Your task to perform on an android device: turn on notifications settings in the gmail app Image 0: 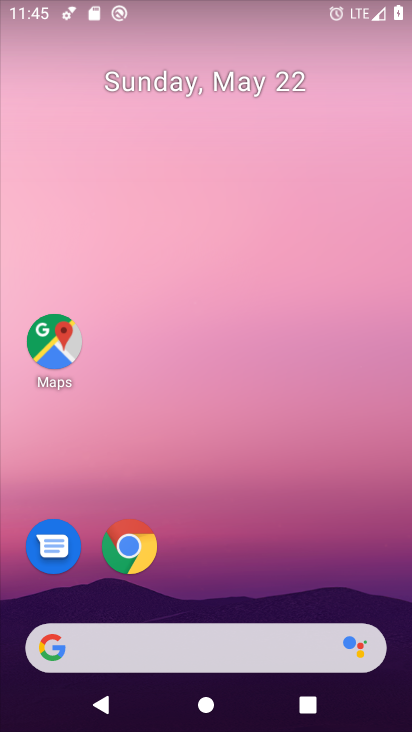
Step 0: drag from (290, 395) to (304, 287)
Your task to perform on an android device: turn on notifications settings in the gmail app Image 1: 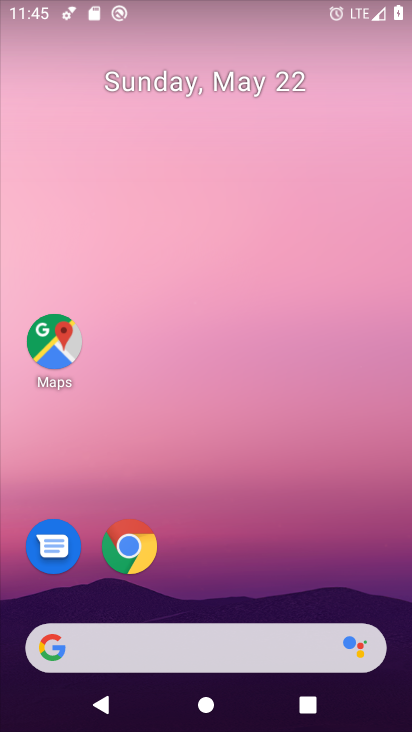
Step 1: drag from (283, 543) to (274, 201)
Your task to perform on an android device: turn on notifications settings in the gmail app Image 2: 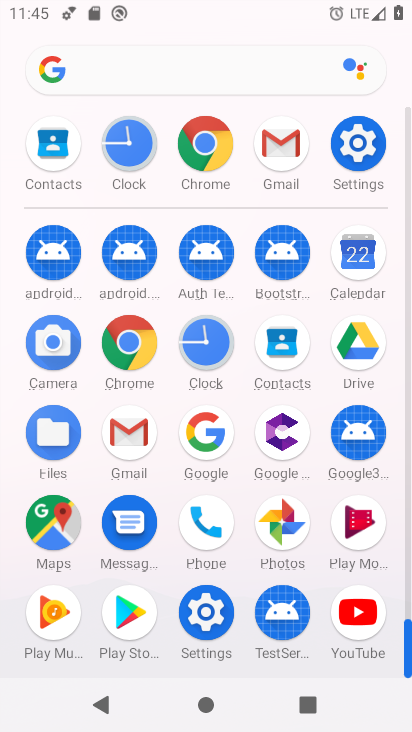
Step 2: click (282, 150)
Your task to perform on an android device: turn on notifications settings in the gmail app Image 3: 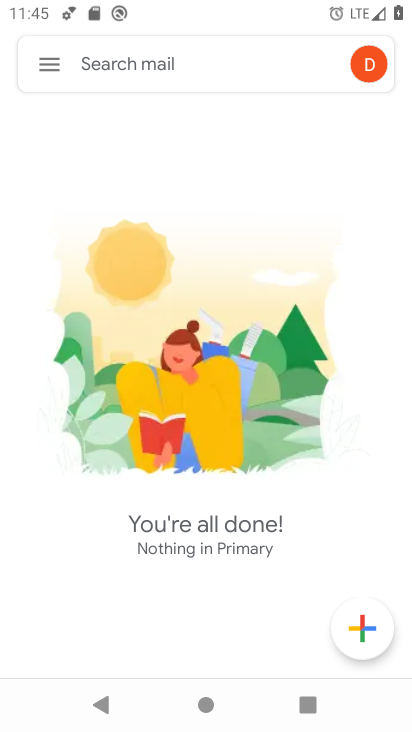
Step 3: click (47, 67)
Your task to perform on an android device: turn on notifications settings in the gmail app Image 4: 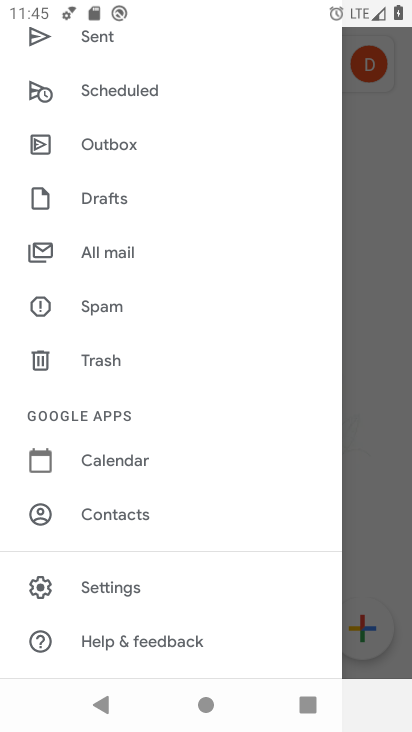
Step 4: click (122, 586)
Your task to perform on an android device: turn on notifications settings in the gmail app Image 5: 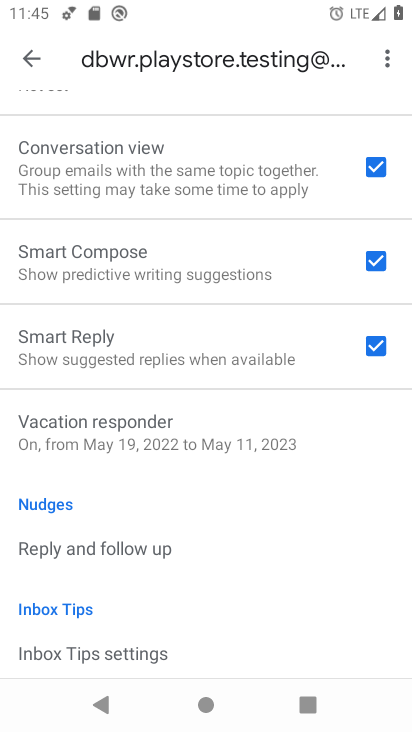
Step 5: drag from (220, 366) to (205, 516)
Your task to perform on an android device: turn on notifications settings in the gmail app Image 6: 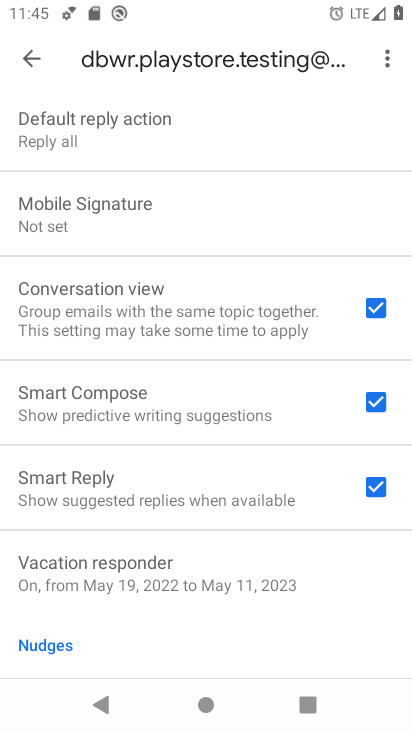
Step 6: drag from (238, 217) to (215, 431)
Your task to perform on an android device: turn on notifications settings in the gmail app Image 7: 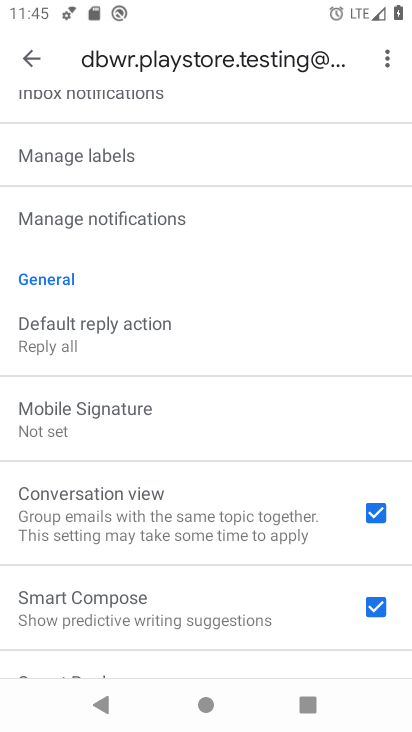
Step 7: click (22, 48)
Your task to perform on an android device: turn on notifications settings in the gmail app Image 8: 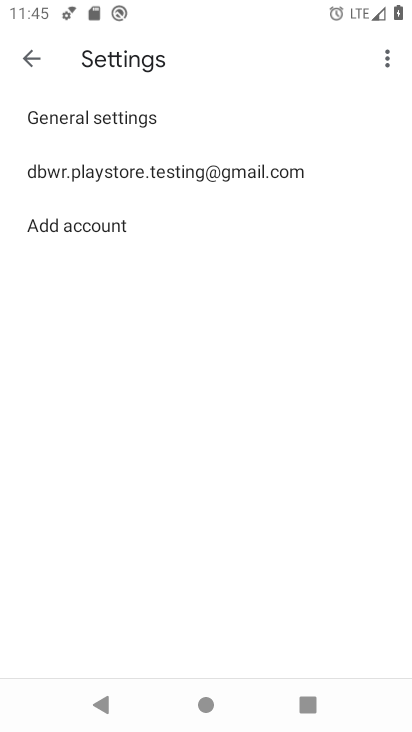
Step 8: click (137, 127)
Your task to perform on an android device: turn on notifications settings in the gmail app Image 9: 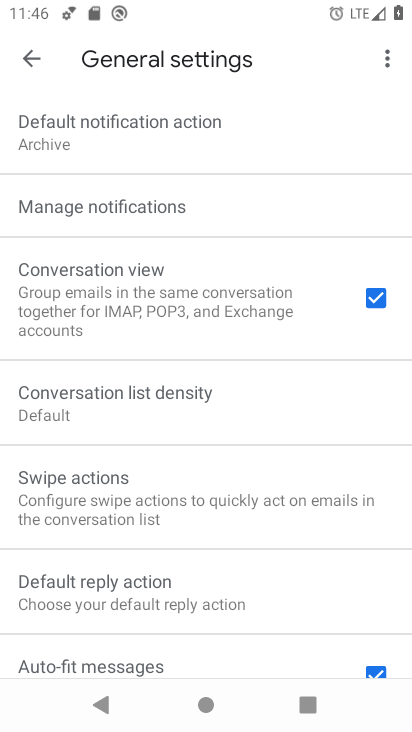
Step 9: click (160, 201)
Your task to perform on an android device: turn on notifications settings in the gmail app Image 10: 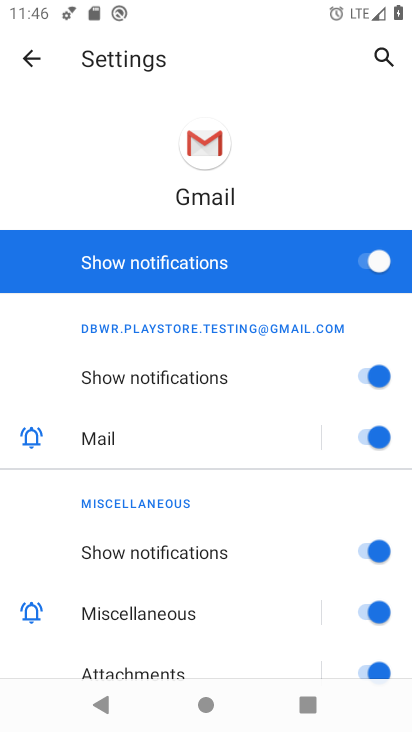
Step 10: task complete